Your task to perform on an android device: Open Yahoo.com Image 0: 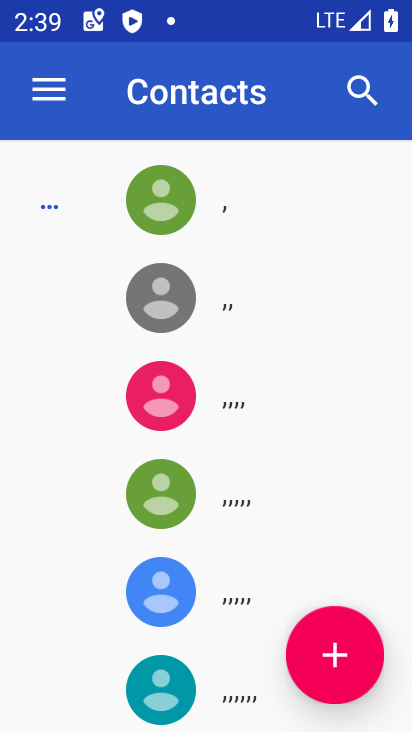
Step 0: press home button
Your task to perform on an android device: Open Yahoo.com Image 1: 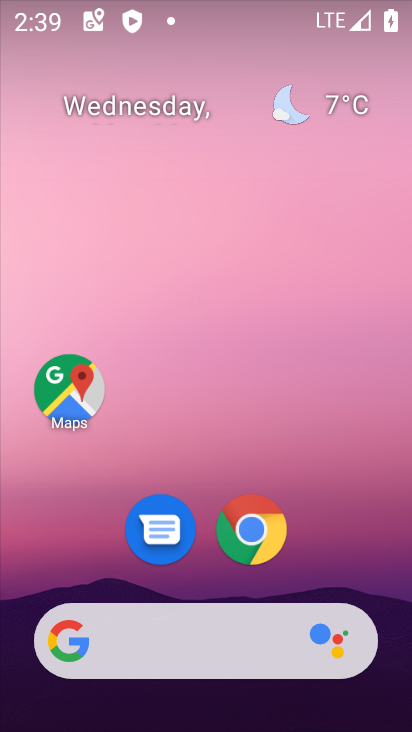
Step 1: drag from (359, 385) to (365, 148)
Your task to perform on an android device: Open Yahoo.com Image 2: 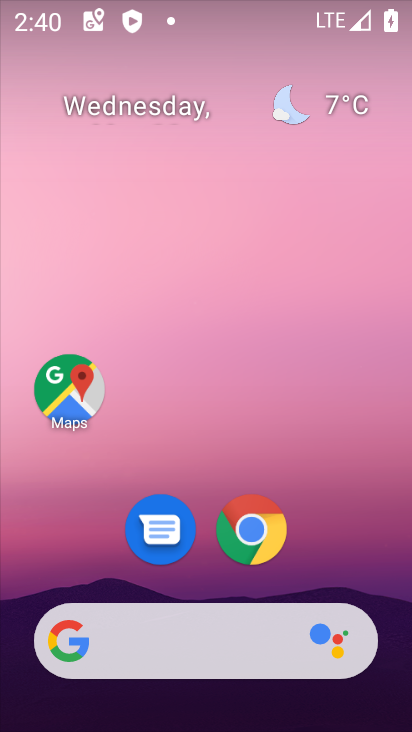
Step 2: click (262, 525)
Your task to perform on an android device: Open Yahoo.com Image 3: 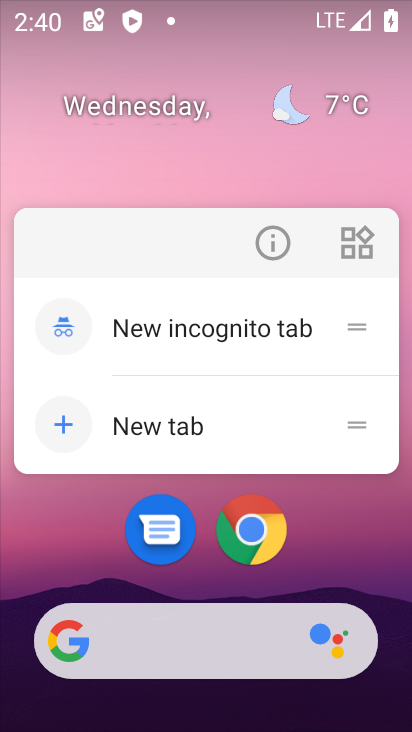
Step 3: click (262, 524)
Your task to perform on an android device: Open Yahoo.com Image 4: 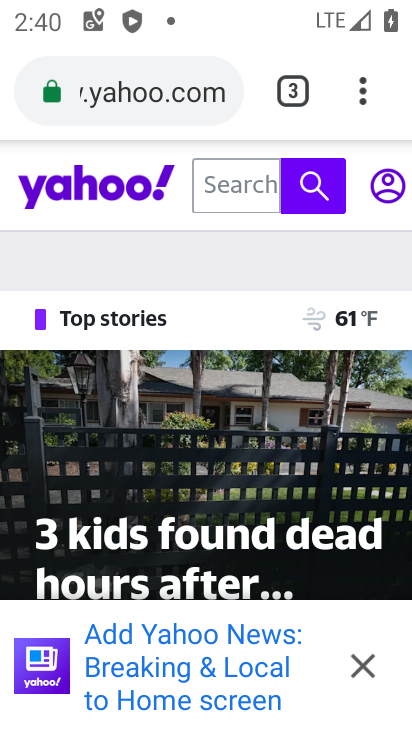
Step 4: task complete